Your task to perform on an android device: empty trash in the gmail app Image 0: 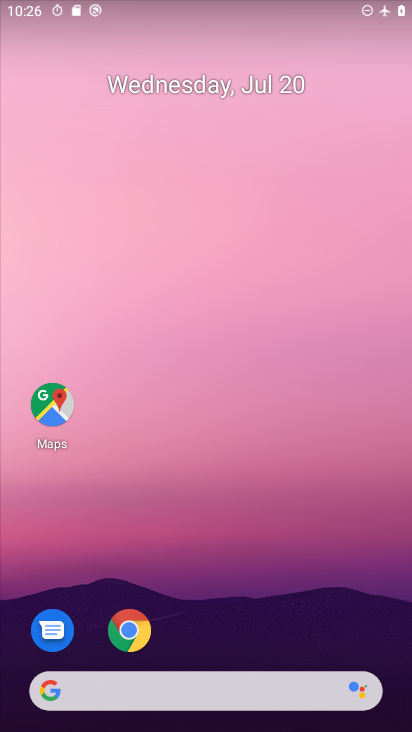
Step 0: drag from (294, 638) to (318, 148)
Your task to perform on an android device: empty trash in the gmail app Image 1: 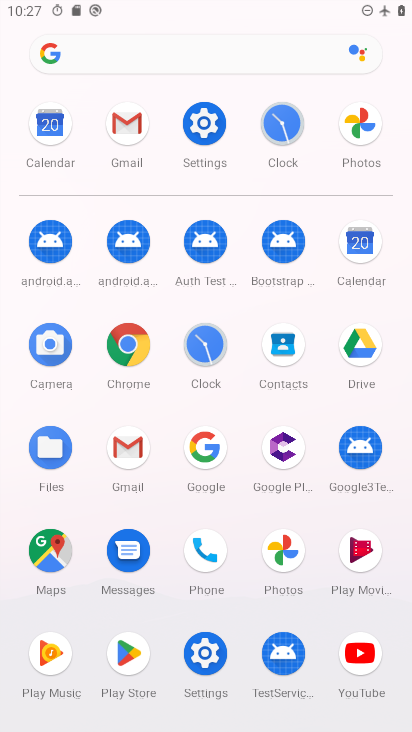
Step 1: click (125, 463)
Your task to perform on an android device: empty trash in the gmail app Image 2: 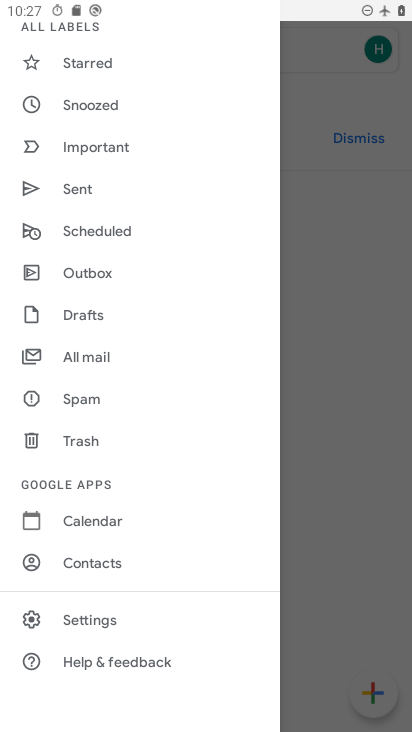
Step 2: click (90, 440)
Your task to perform on an android device: empty trash in the gmail app Image 3: 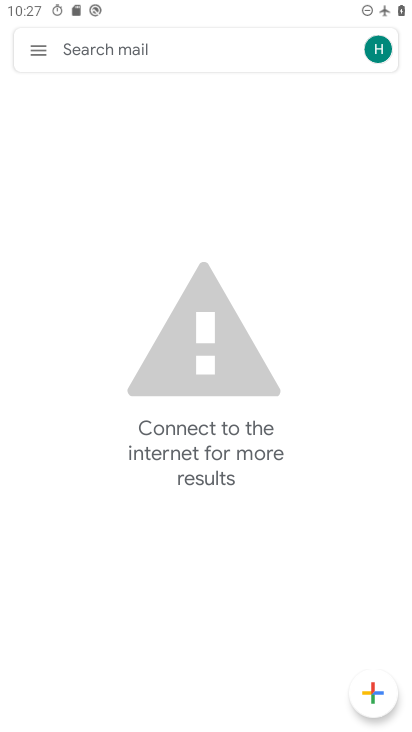
Step 3: task complete